Your task to perform on an android device: turn off wifi Image 0: 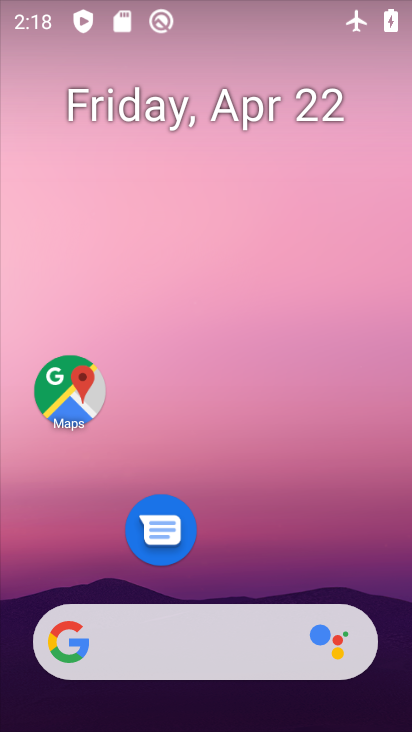
Step 0: drag from (258, 506) to (197, 10)
Your task to perform on an android device: turn off wifi Image 1: 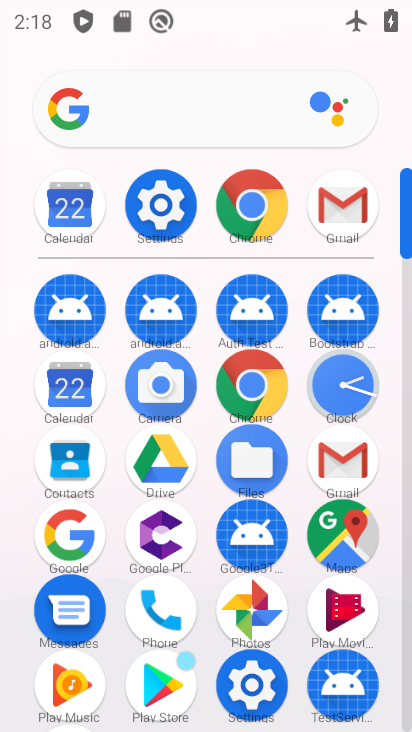
Step 1: click (155, 209)
Your task to perform on an android device: turn off wifi Image 2: 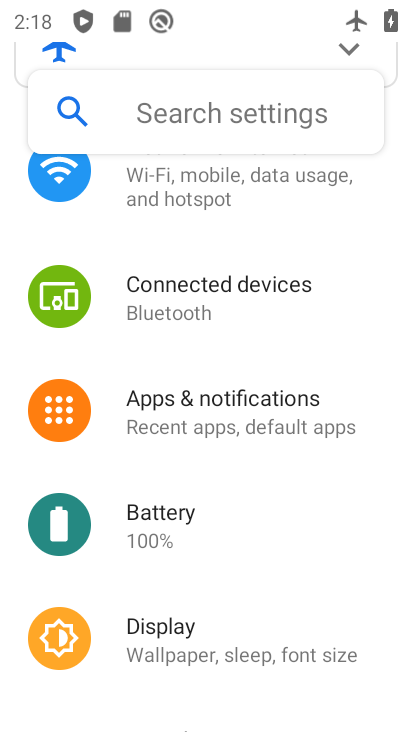
Step 2: drag from (190, 371) to (174, 671)
Your task to perform on an android device: turn off wifi Image 3: 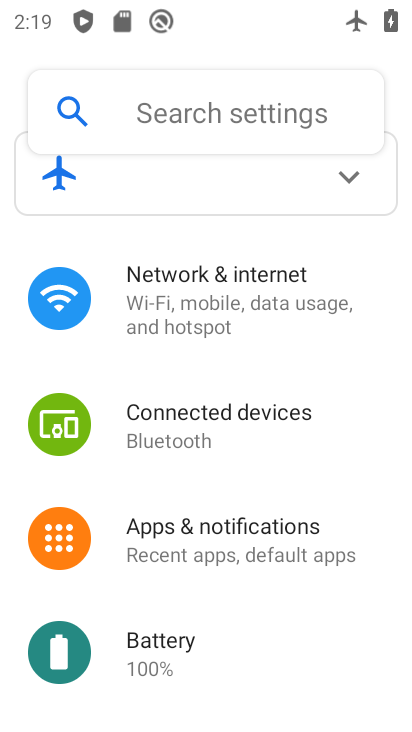
Step 3: click (179, 280)
Your task to perform on an android device: turn off wifi Image 4: 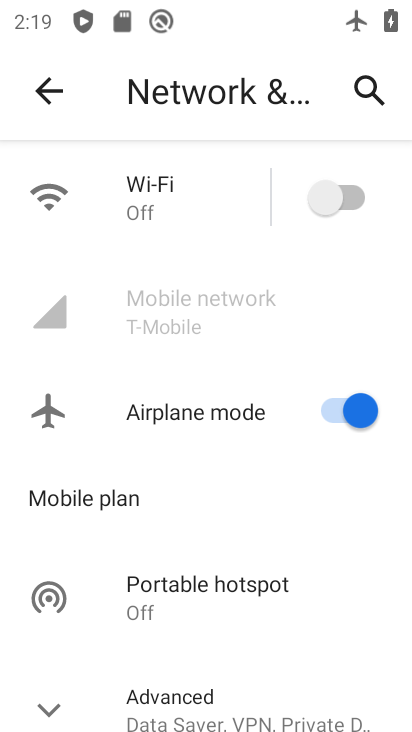
Step 4: task complete